Your task to perform on an android device: Go to Reddit.com Image 0: 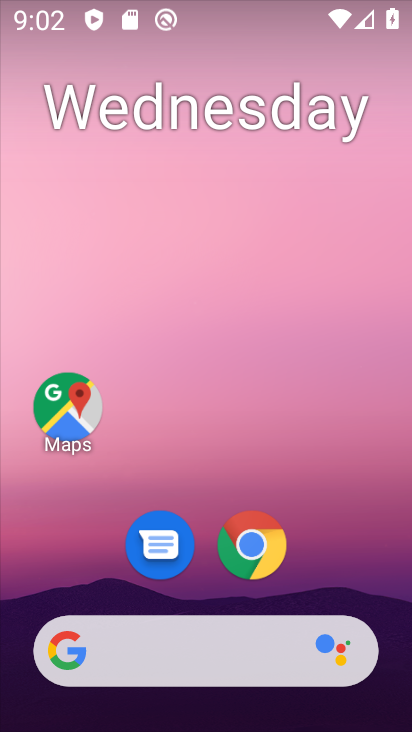
Step 0: click (266, 550)
Your task to perform on an android device: Go to Reddit.com Image 1: 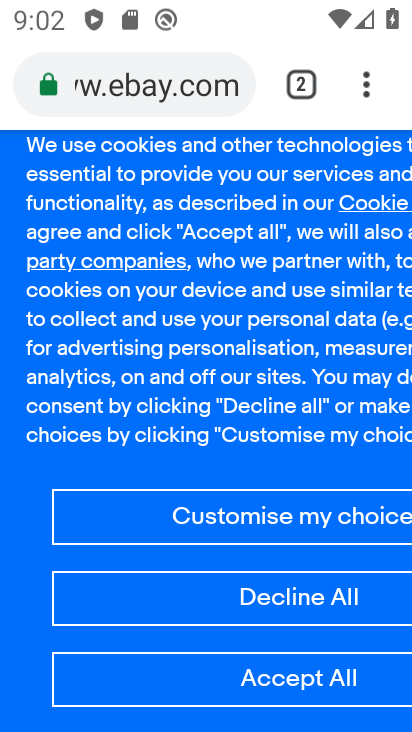
Step 1: click (182, 79)
Your task to perform on an android device: Go to Reddit.com Image 2: 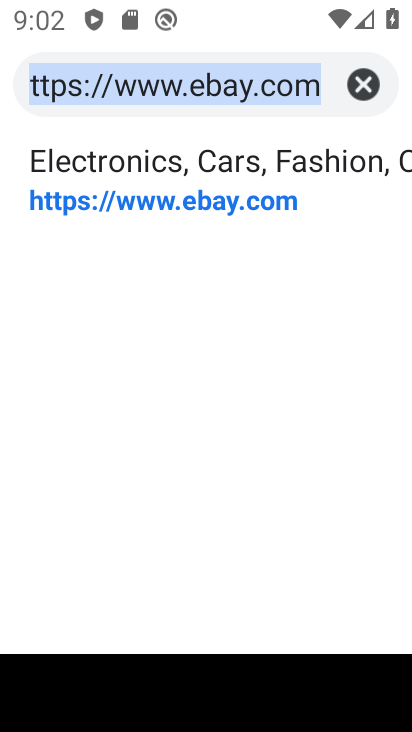
Step 2: type "reddit.com"
Your task to perform on an android device: Go to Reddit.com Image 3: 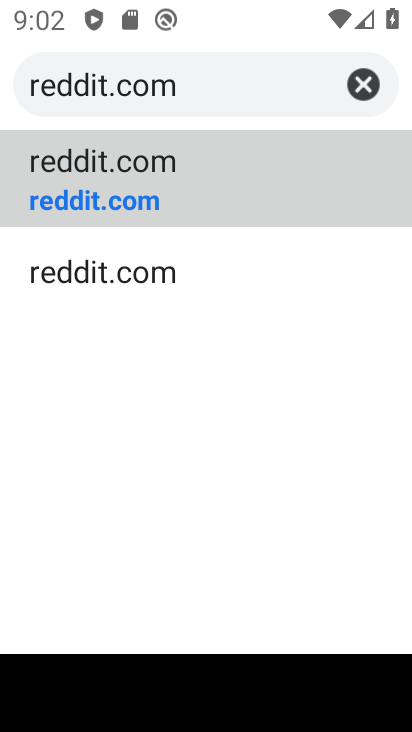
Step 3: click (119, 204)
Your task to perform on an android device: Go to Reddit.com Image 4: 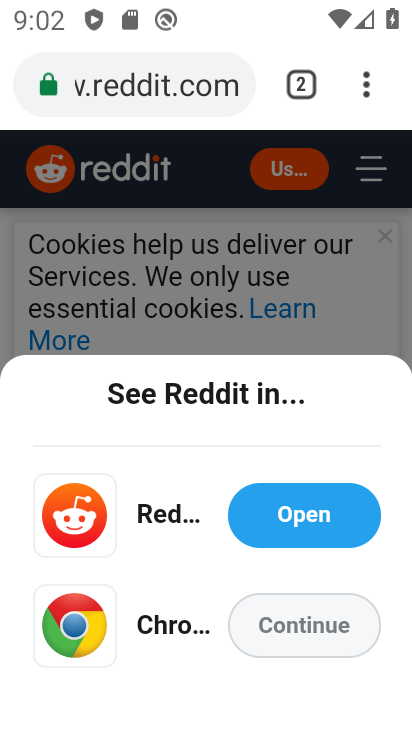
Step 4: task complete